Your task to perform on an android device: Go to Maps Image 0: 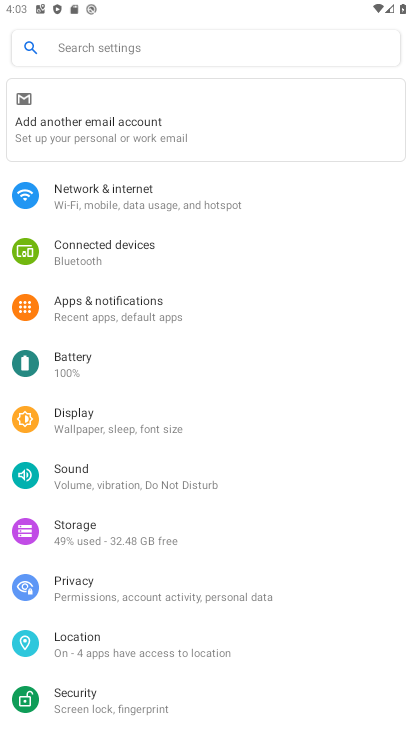
Step 0: press home button
Your task to perform on an android device: Go to Maps Image 1: 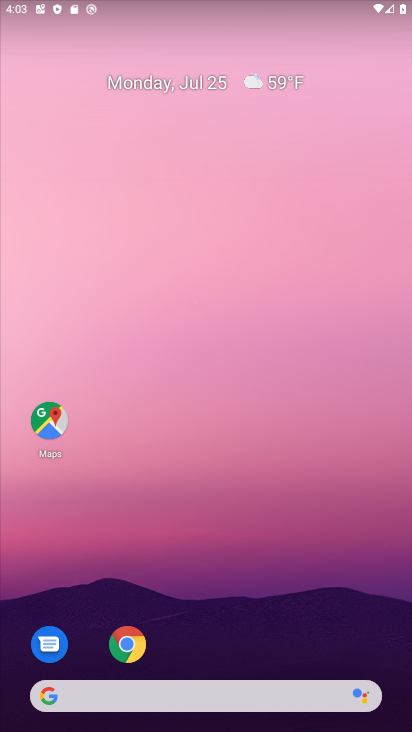
Step 1: click (47, 424)
Your task to perform on an android device: Go to Maps Image 2: 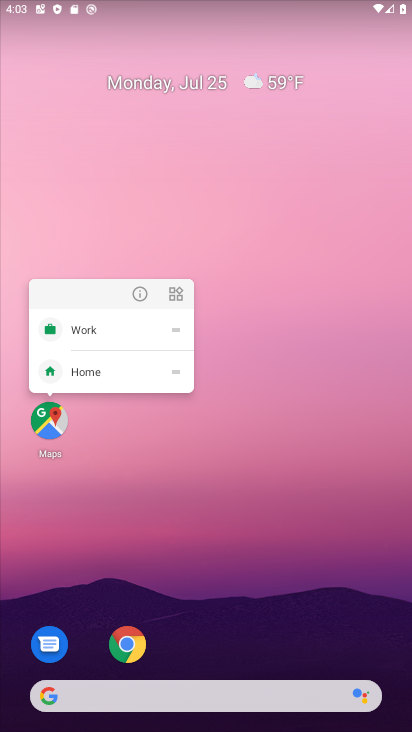
Step 2: click (53, 423)
Your task to perform on an android device: Go to Maps Image 3: 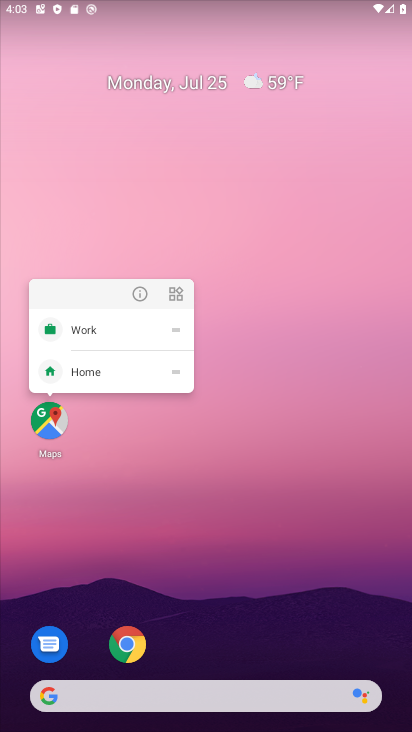
Step 3: click (53, 423)
Your task to perform on an android device: Go to Maps Image 4: 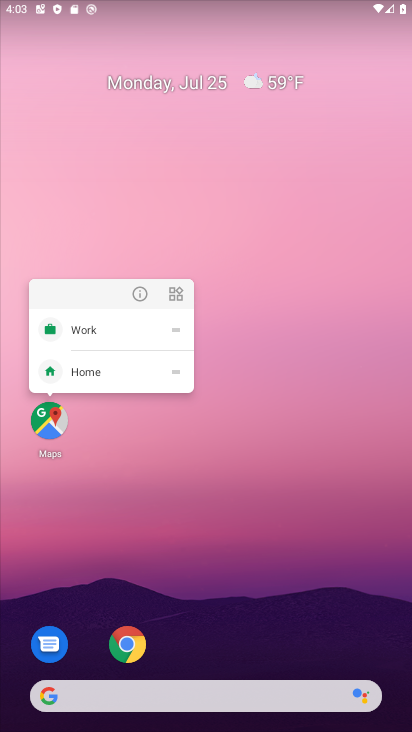
Step 4: click (45, 416)
Your task to perform on an android device: Go to Maps Image 5: 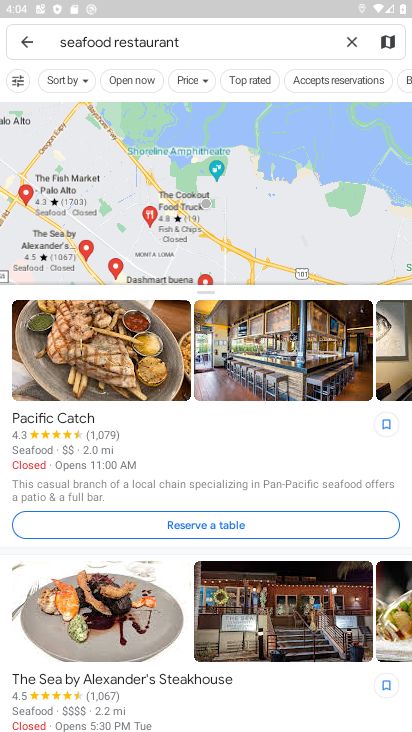
Step 5: click (354, 48)
Your task to perform on an android device: Go to Maps Image 6: 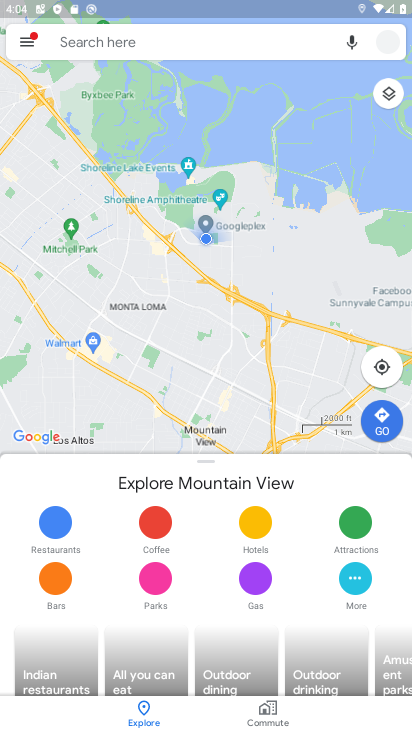
Step 6: click (20, 42)
Your task to perform on an android device: Go to Maps Image 7: 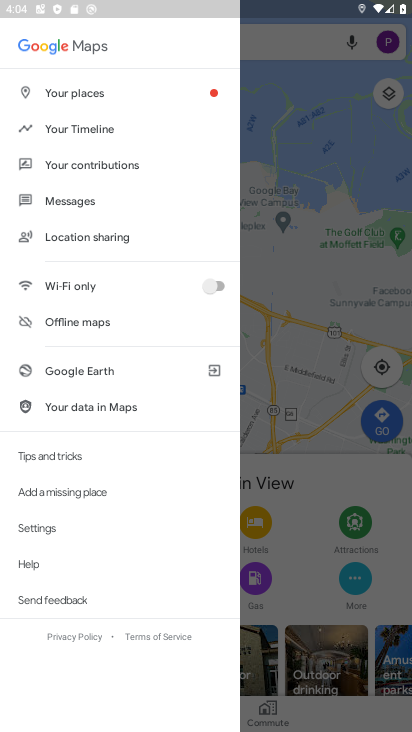
Step 7: click (275, 154)
Your task to perform on an android device: Go to Maps Image 8: 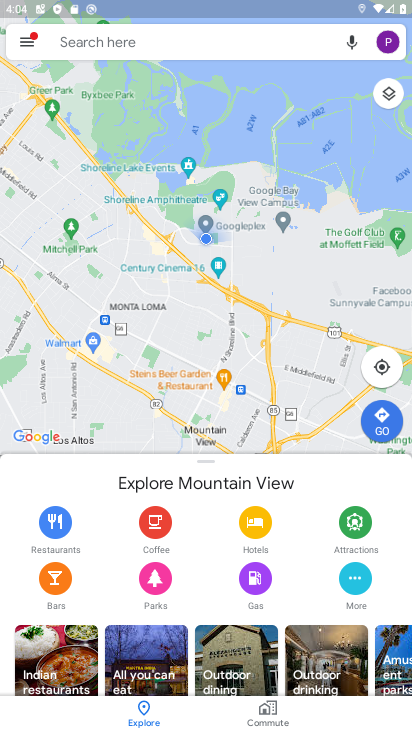
Step 8: task complete